Your task to perform on an android device: Open privacy settings Image 0: 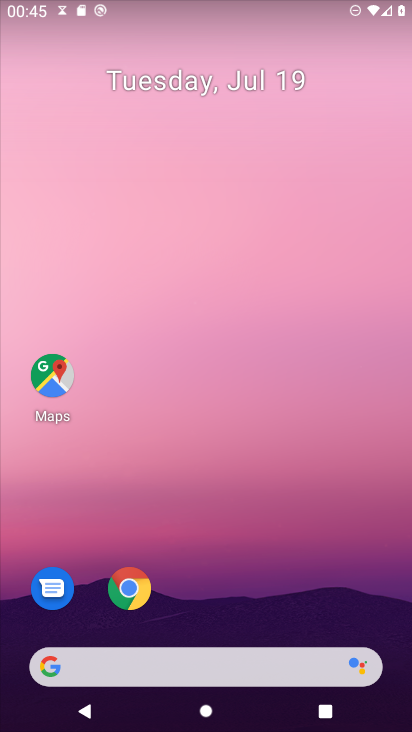
Step 0: press home button
Your task to perform on an android device: Open privacy settings Image 1: 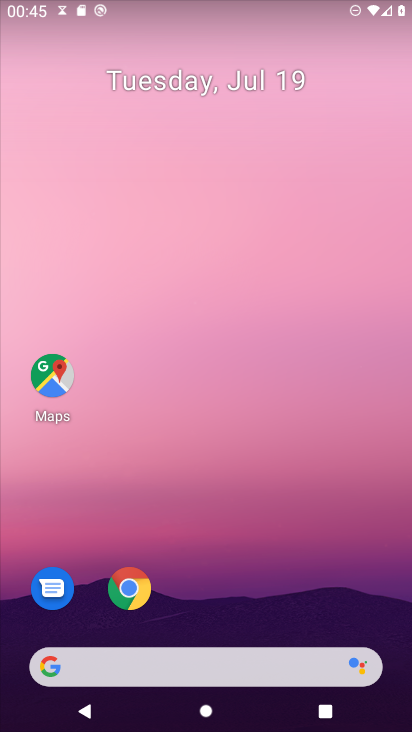
Step 1: drag from (256, 621) to (322, 48)
Your task to perform on an android device: Open privacy settings Image 2: 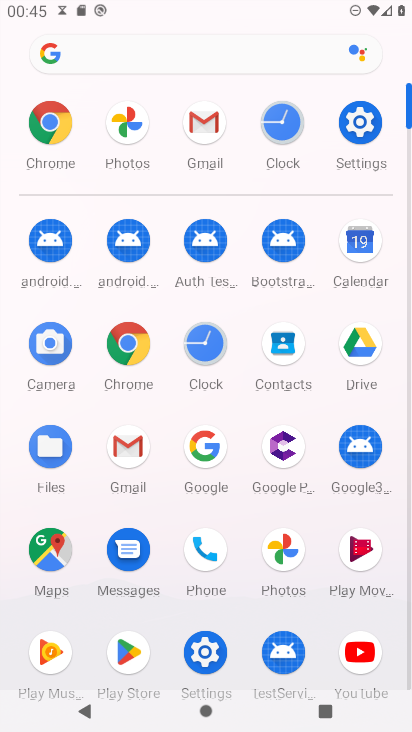
Step 2: click (364, 129)
Your task to perform on an android device: Open privacy settings Image 3: 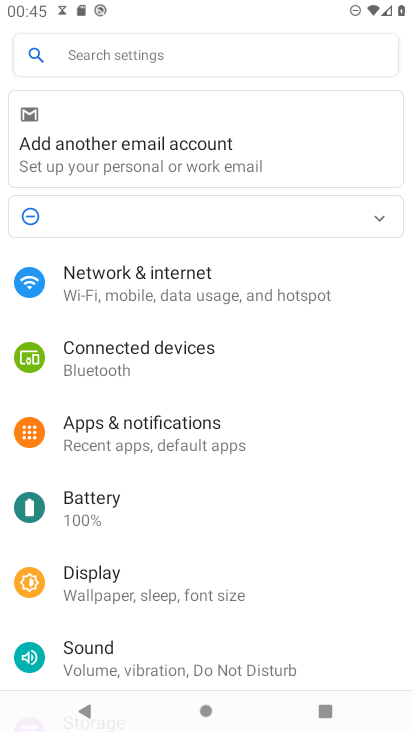
Step 3: drag from (142, 627) to (157, 187)
Your task to perform on an android device: Open privacy settings Image 4: 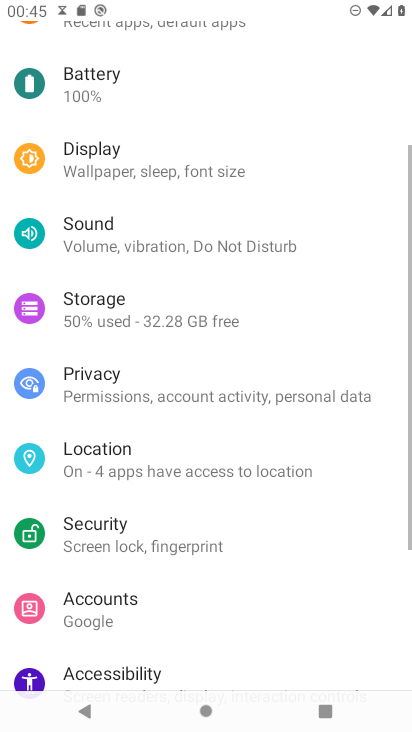
Step 4: drag from (177, 532) to (182, 364)
Your task to perform on an android device: Open privacy settings Image 5: 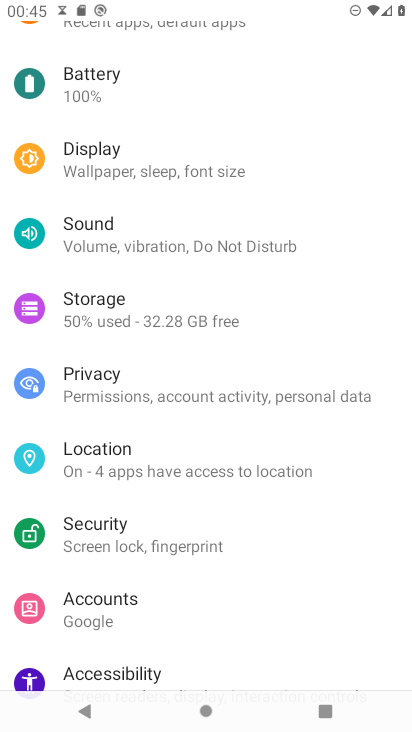
Step 5: click (178, 384)
Your task to perform on an android device: Open privacy settings Image 6: 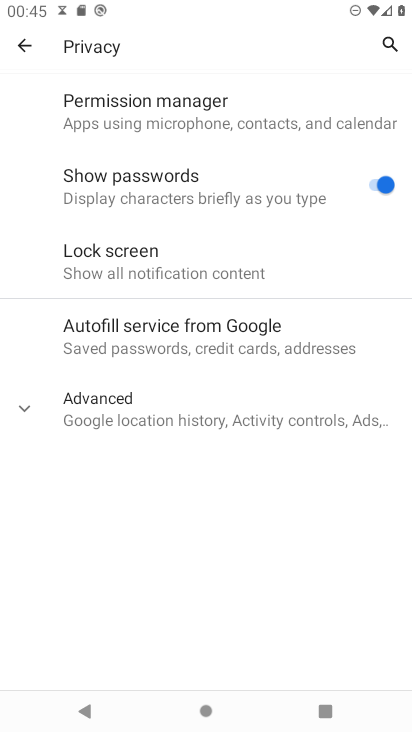
Step 6: task complete